Your task to perform on an android device: Open Android settings Image 0: 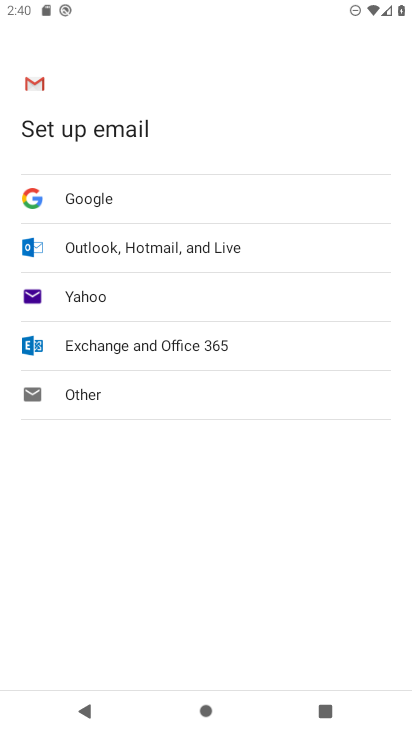
Step 0: press home button
Your task to perform on an android device: Open Android settings Image 1: 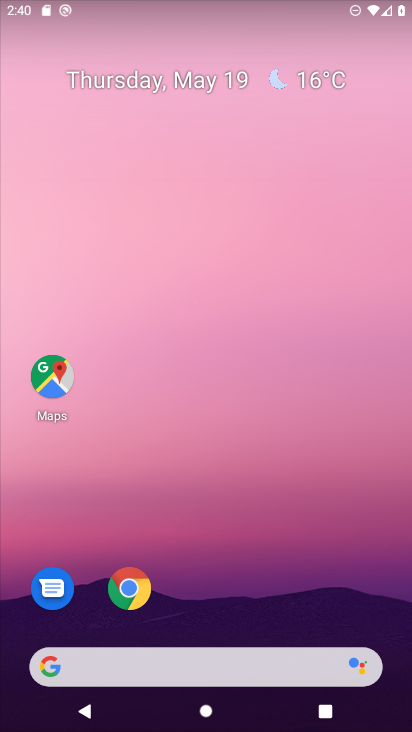
Step 1: drag from (288, 633) to (342, 19)
Your task to perform on an android device: Open Android settings Image 2: 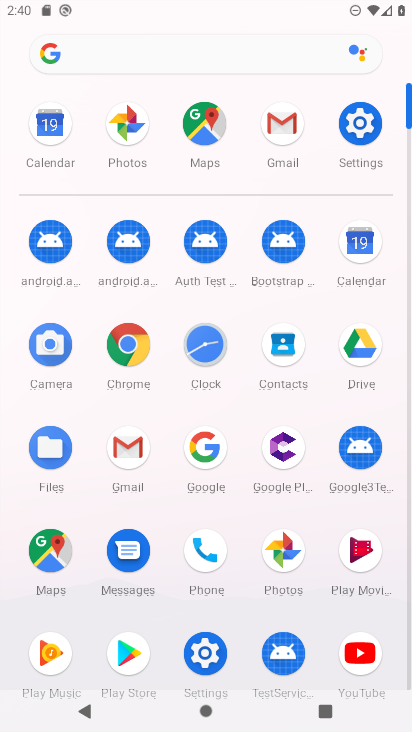
Step 2: click (361, 131)
Your task to perform on an android device: Open Android settings Image 3: 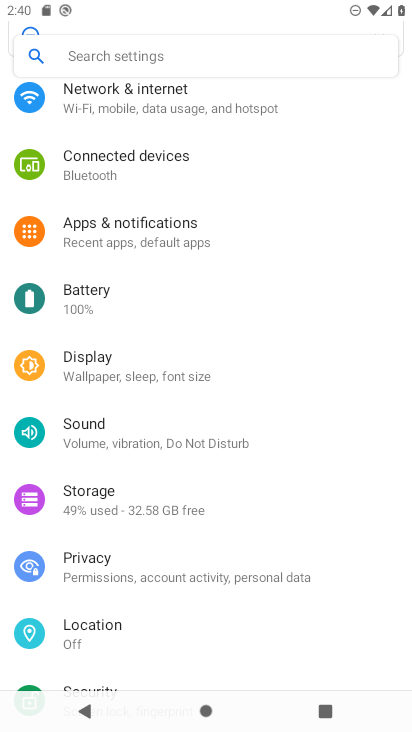
Step 3: task complete